Your task to perform on an android device: Open settings Image 0: 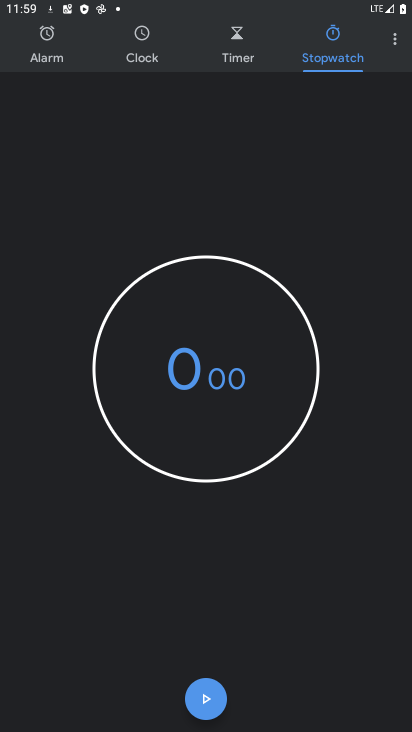
Step 0: press home button
Your task to perform on an android device: Open settings Image 1: 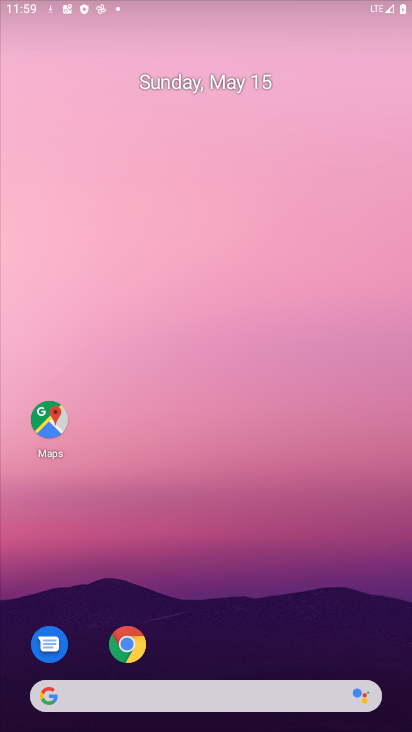
Step 1: drag from (228, 726) to (315, 318)
Your task to perform on an android device: Open settings Image 2: 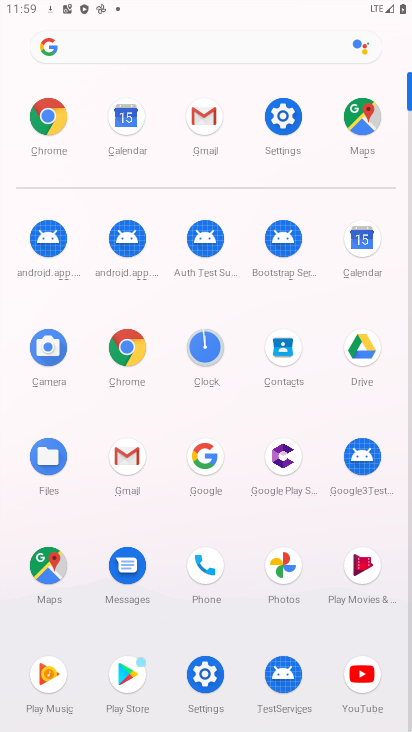
Step 2: click (286, 126)
Your task to perform on an android device: Open settings Image 3: 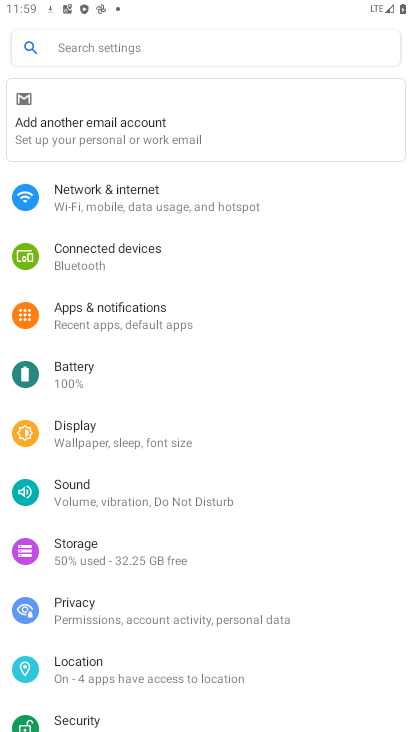
Step 3: task complete